Your task to perform on an android device: turn on notifications settings in the gmail app Image 0: 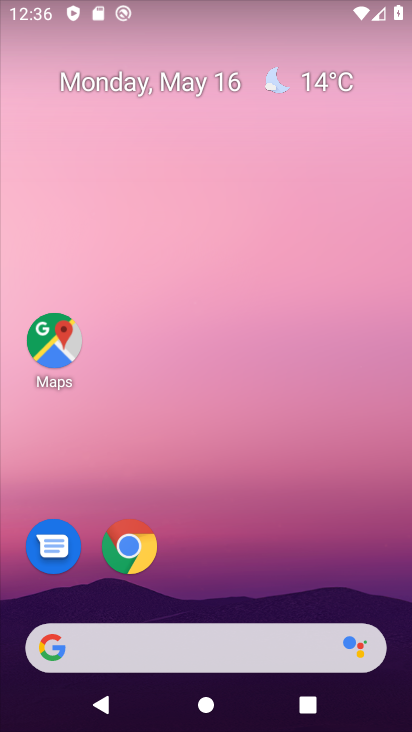
Step 0: drag from (295, 658) to (242, 157)
Your task to perform on an android device: turn on notifications settings in the gmail app Image 1: 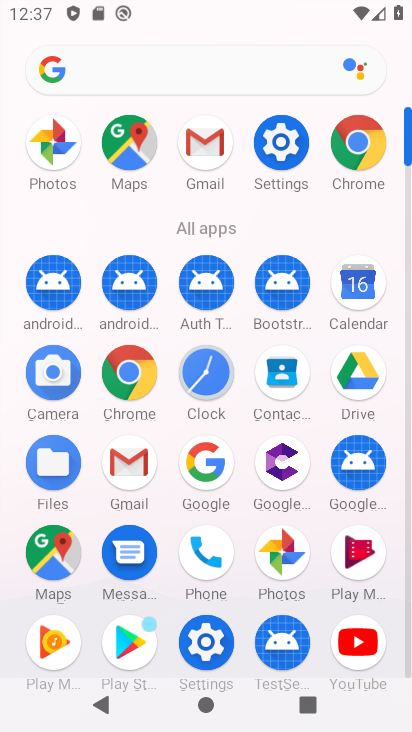
Step 1: click (126, 455)
Your task to perform on an android device: turn on notifications settings in the gmail app Image 2: 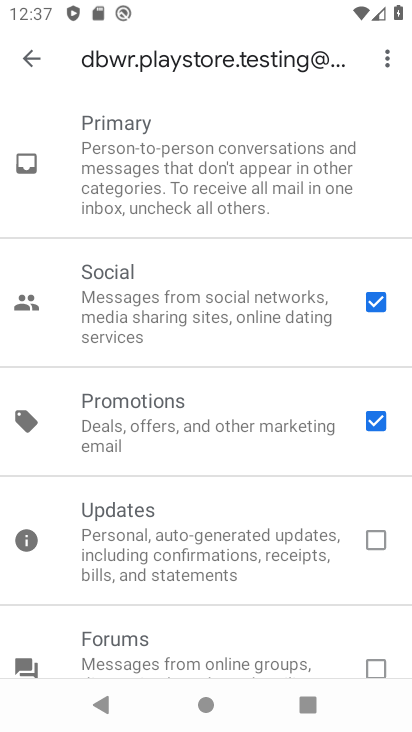
Step 2: click (31, 56)
Your task to perform on an android device: turn on notifications settings in the gmail app Image 3: 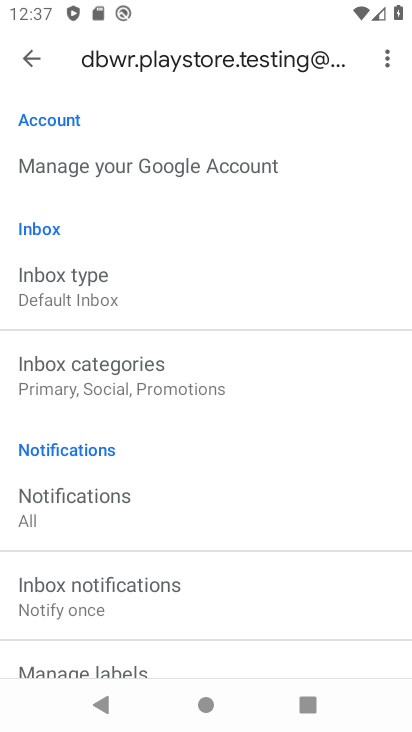
Step 3: click (77, 492)
Your task to perform on an android device: turn on notifications settings in the gmail app Image 4: 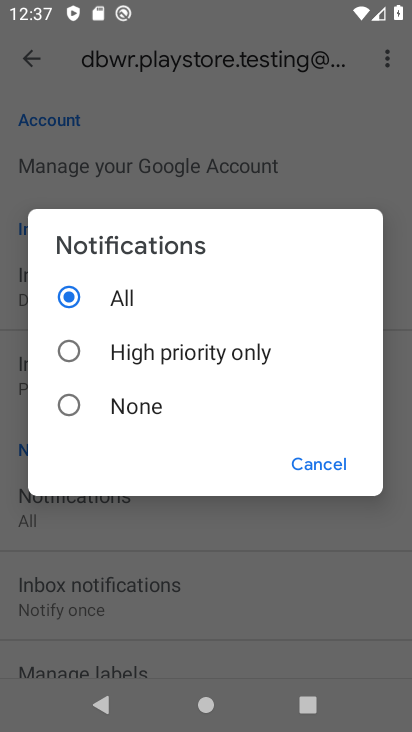
Step 4: task complete